Your task to perform on an android device: check android version Image 0: 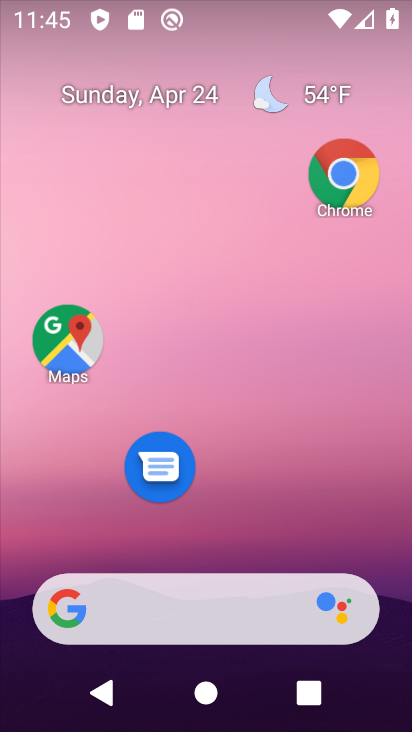
Step 0: click (208, 278)
Your task to perform on an android device: check android version Image 1: 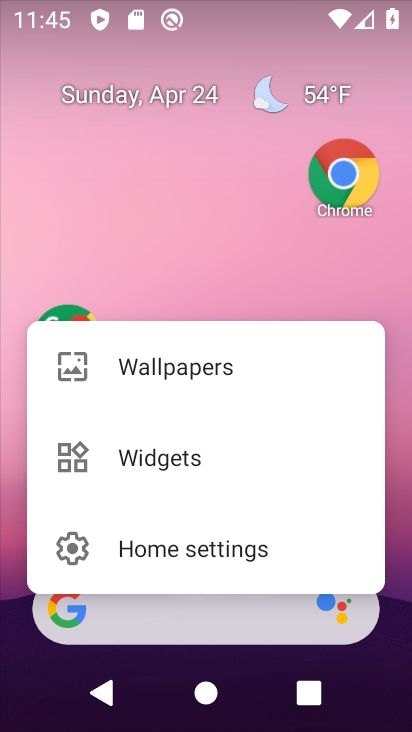
Step 1: click (211, 265)
Your task to perform on an android device: check android version Image 2: 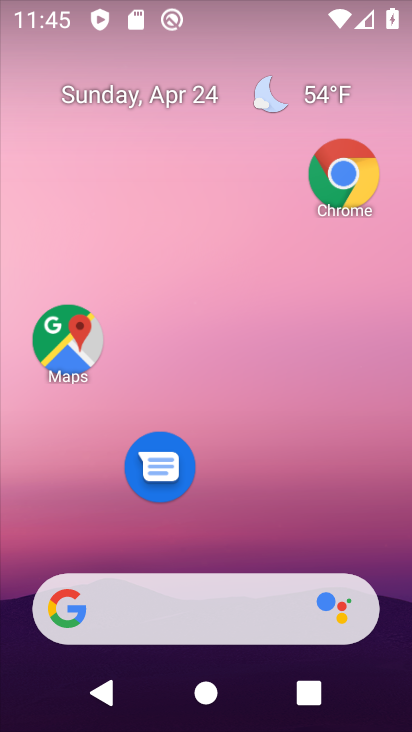
Step 2: drag from (218, 522) to (195, 236)
Your task to perform on an android device: check android version Image 3: 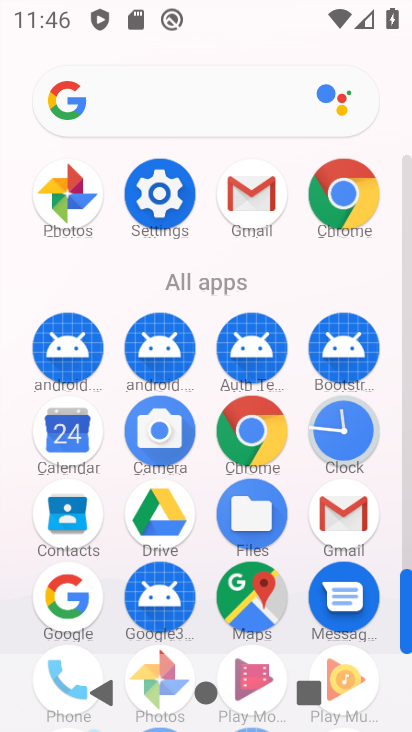
Step 3: drag from (208, 626) to (197, 239)
Your task to perform on an android device: check android version Image 4: 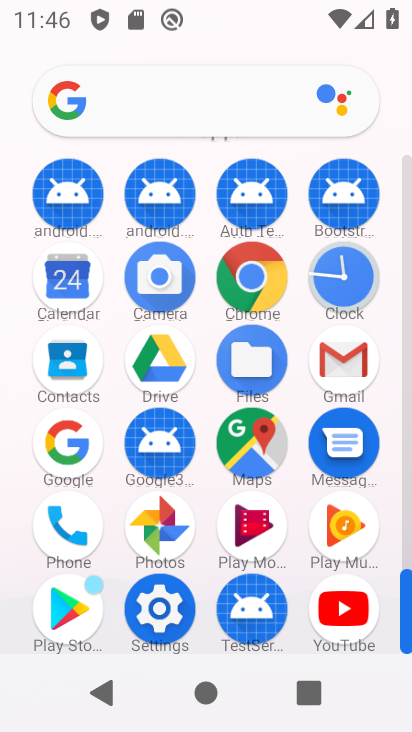
Step 4: click (178, 606)
Your task to perform on an android device: check android version Image 5: 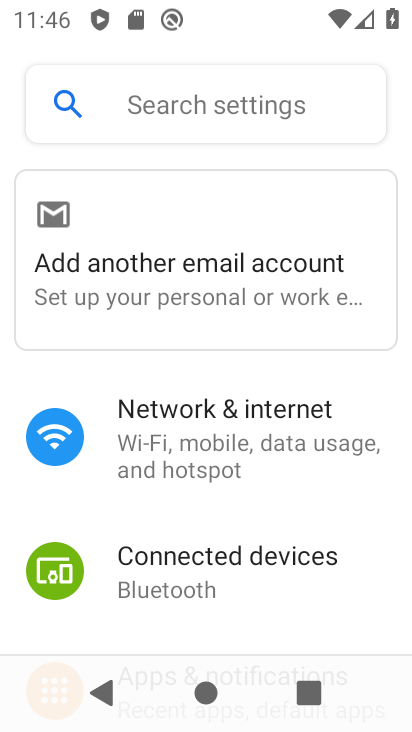
Step 5: drag from (233, 273) to (275, 142)
Your task to perform on an android device: check android version Image 6: 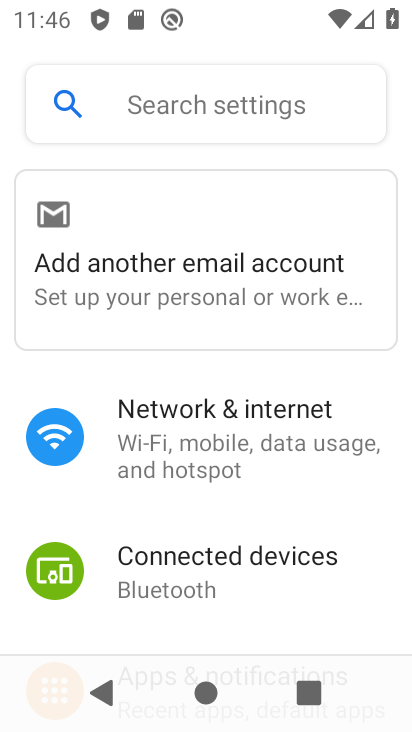
Step 6: drag from (211, 603) to (334, 13)
Your task to perform on an android device: check android version Image 7: 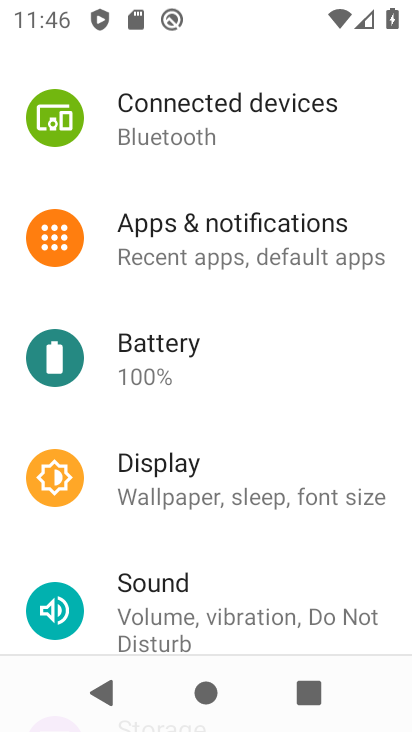
Step 7: drag from (157, 589) to (280, 69)
Your task to perform on an android device: check android version Image 8: 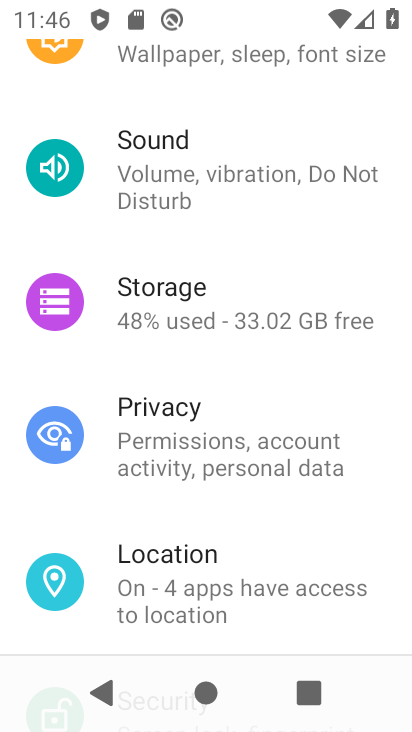
Step 8: drag from (205, 597) to (255, 214)
Your task to perform on an android device: check android version Image 9: 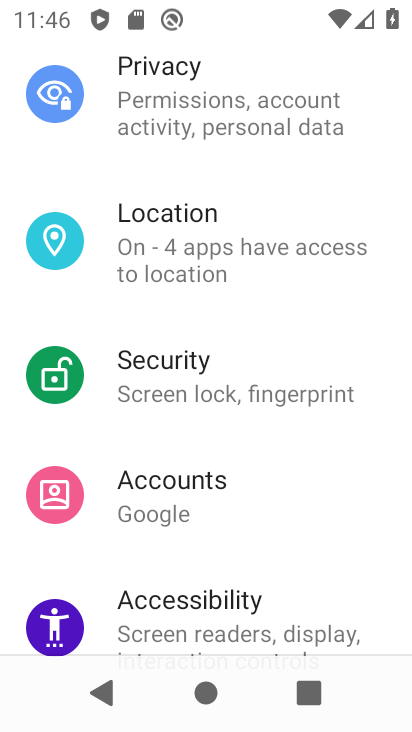
Step 9: click (245, 182)
Your task to perform on an android device: check android version Image 10: 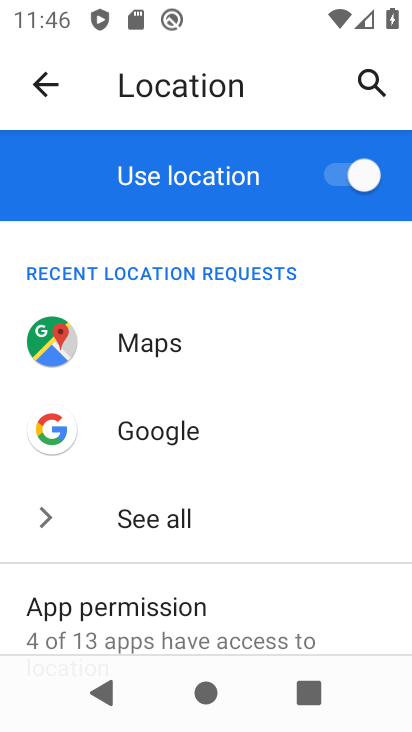
Step 10: click (51, 74)
Your task to perform on an android device: check android version Image 11: 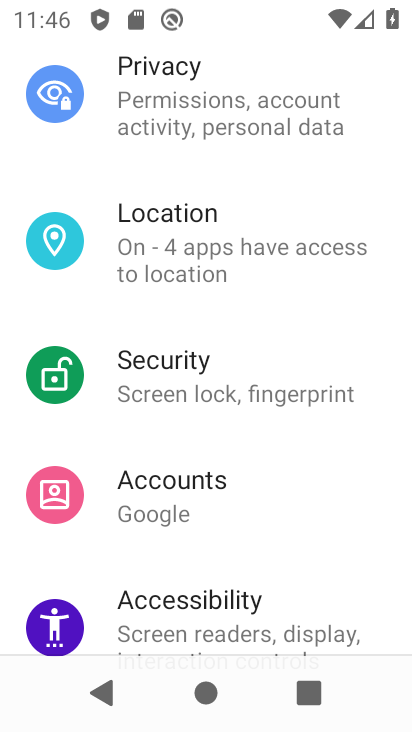
Step 11: drag from (191, 551) to (222, 7)
Your task to perform on an android device: check android version Image 12: 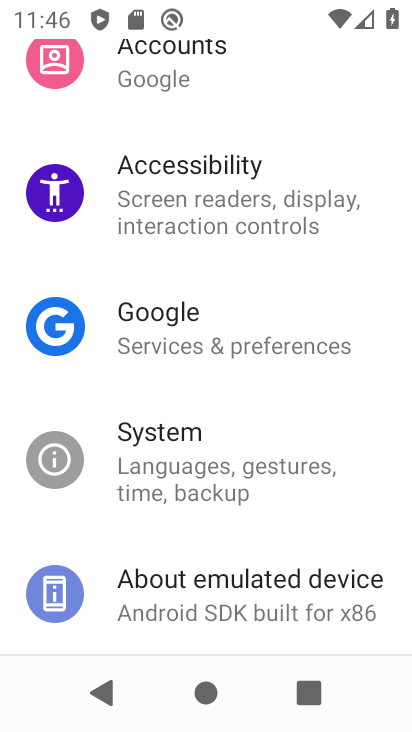
Step 12: drag from (176, 545) to (210, 59)
Your task to perform on an android device: check android version Image 13: 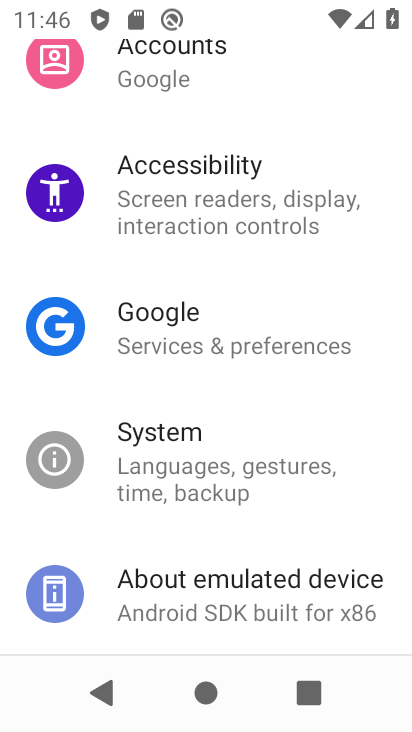
Step 13: drag from (171, 572) to (221, 189)
Your task to perform on an android device: check android version Image 14: 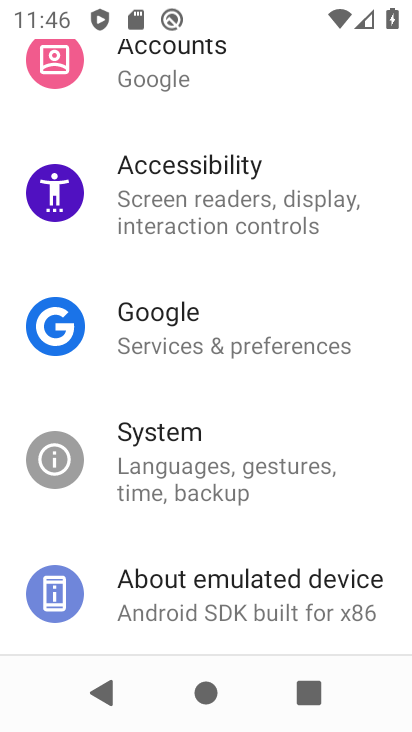
Step 14: click (209, 597)
Your task to perform on an android device: check android version Image 15: 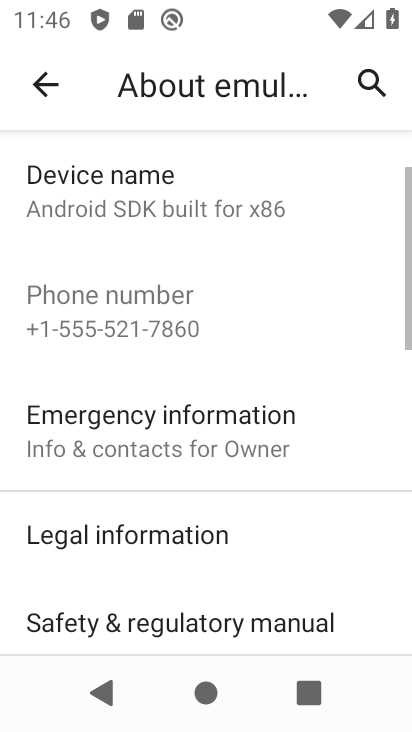
Step 15: drag from (170, 586) to (253, 224)
Your task to perform on an android device: check android version Image 16: 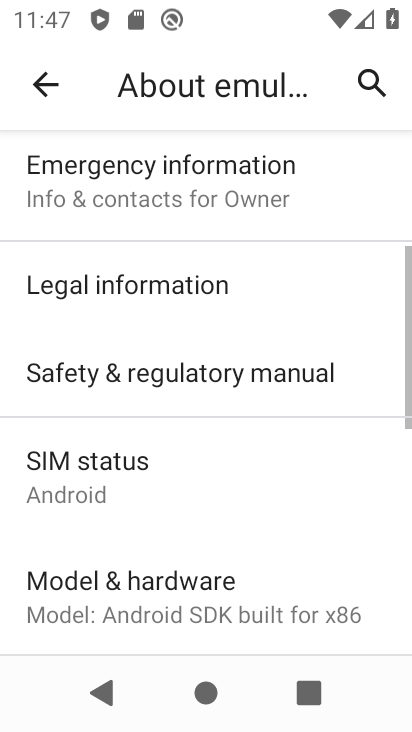
Step 16: drag from (177, 534) to (254, 125)
Your task to perform on an android device: check android version Image 17: 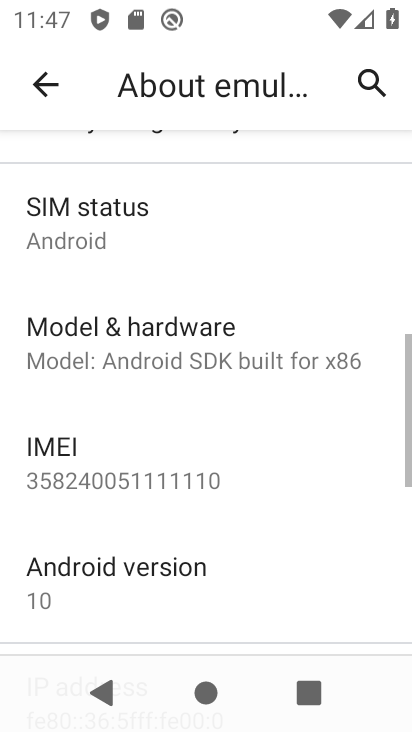
Step 17: click (151, 553)
Your task to perform on an android device: check android version Image 18: 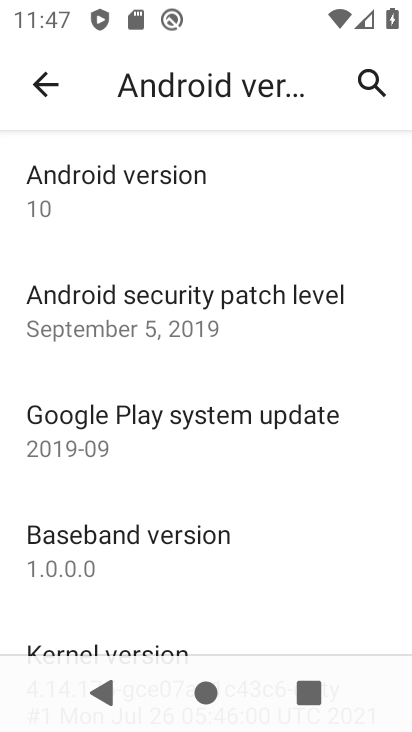
Step 18: task complete